Your task to perform on an android device: open app "DoorDash - Dasher" (install if not already installed) Image 0: 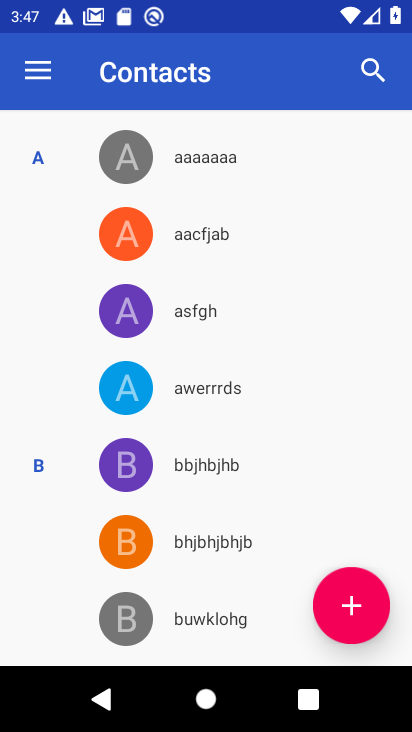
Step 0: press home button
Your task to perform on an android device: open app "DoorDash - Dasher" (install if not already installed) Image 1: 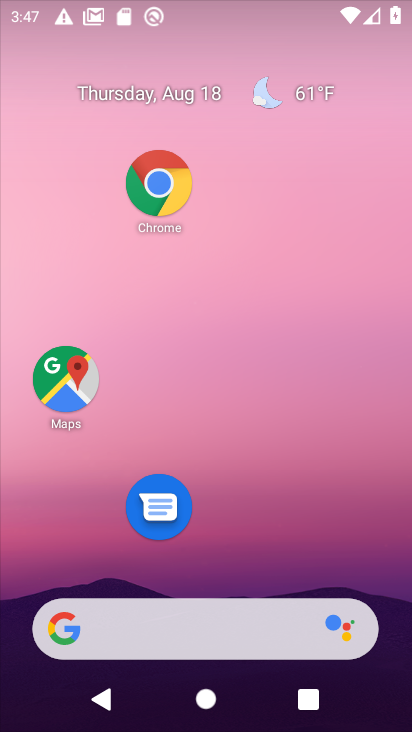
Step 1: drag from (309, 475) to (384, 3)
Your task to perform on an android device: open app "DoorDash - Dasher" (install if not already installed) Image 2: 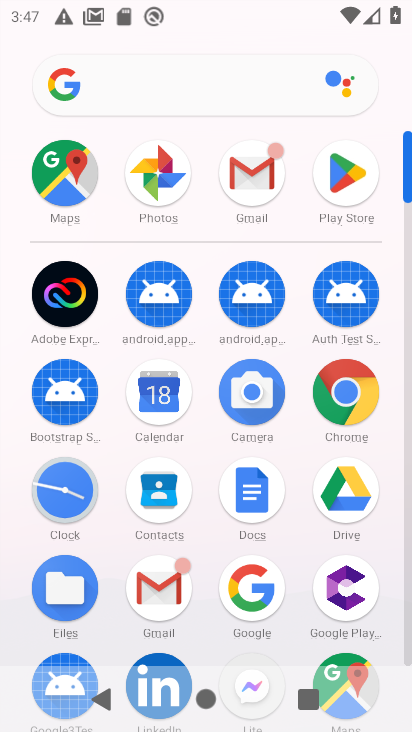
Step 2: click (357, 175)
Your task to perform on an android device: open app "DoorDash - Dasher" (install if not already installed) Image 3: 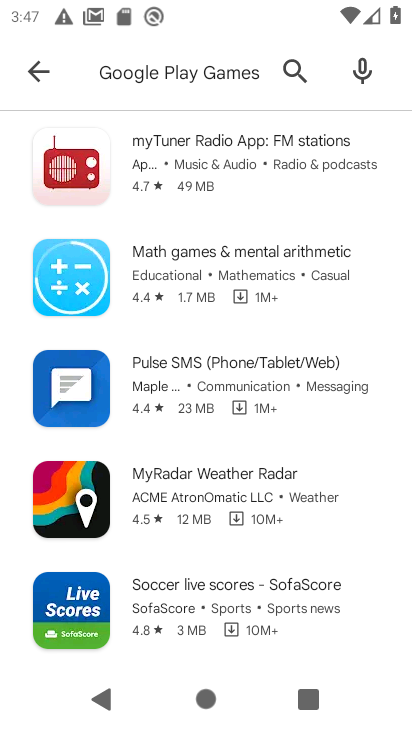
Step 3: click (290, 57)
Your task to perform on an android device: open app "DoorDash - Dasher" (install if not already installed) Image 4: 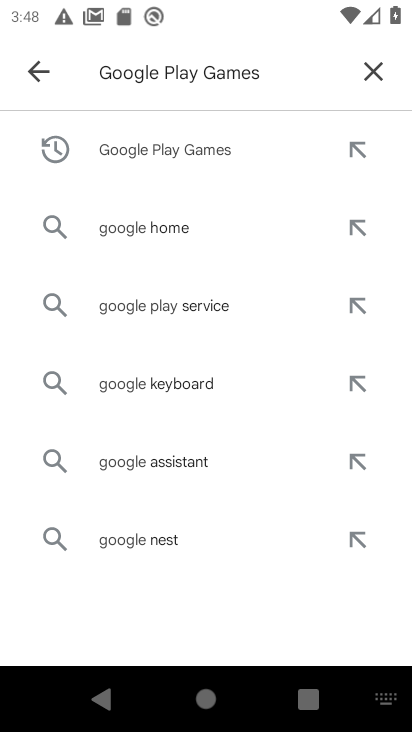
Step 4: click (387, 78)
Your task to perform on an android device: open app "DoorDash - Dasher" (install if not already installed) Image 5: 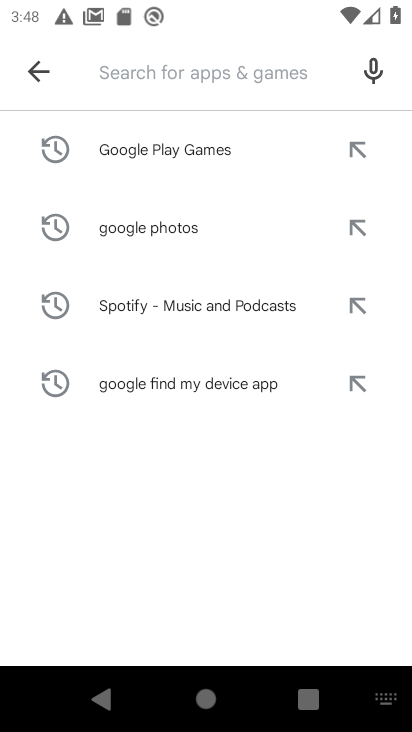
Step 5: click (152, 60)
Your task to perform on an android device: open app "DoorDash - Dasher" (install if not already installed) Image 6: 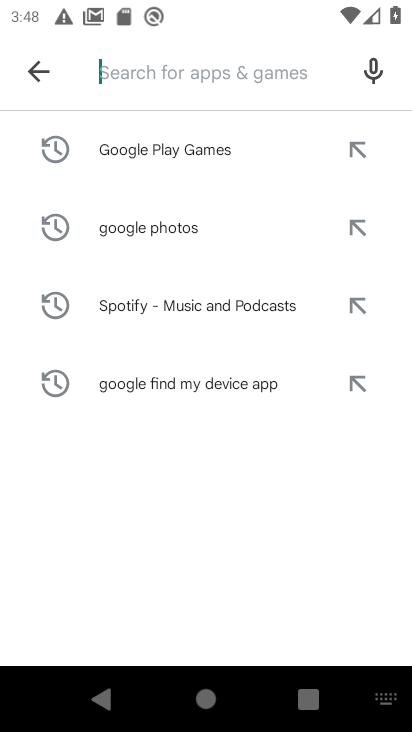
Step 6: type "DoorDash"
Your task to perform on an android device: open app "DoorDash - Dasher" (install if not already installed) Image 7: 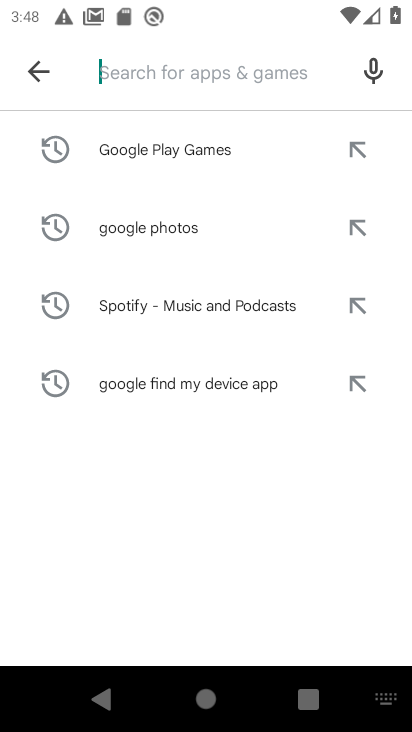
Step 7: click (197, 486)
Your task to perform on an android device: open app "DoorDash - Dasher" (install if not already installed) Image 8: 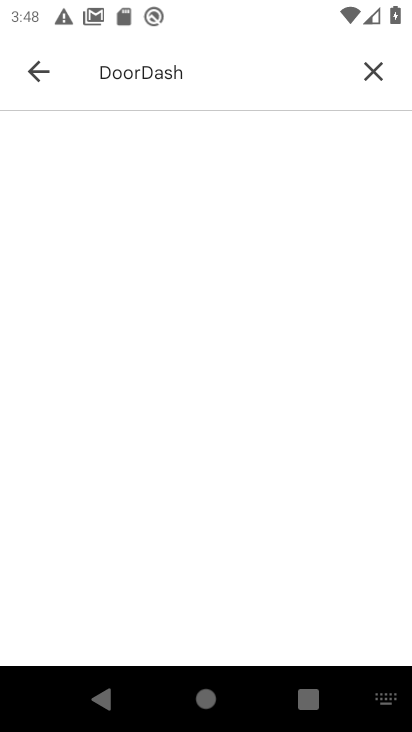
Step 8: click (372, 76)
Your task to perform on an android device: open app "DoorDash - Dasher" (install if not already installed) Image 9: 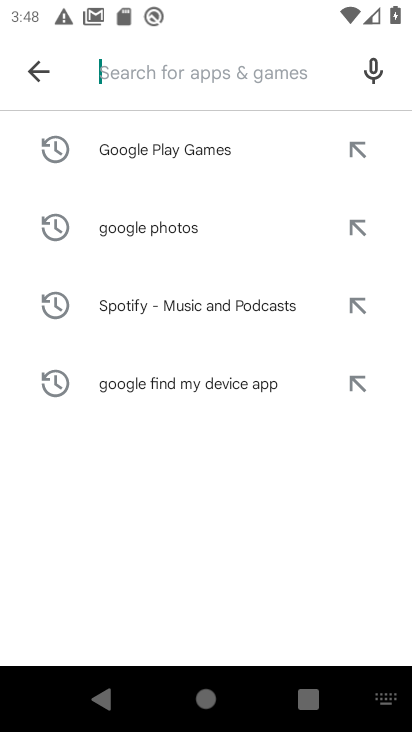
Step 9: click (193, 82)
Your task to perform on an android device: open app "DoorDash - Dasher" (install if not already installed) Image 10: 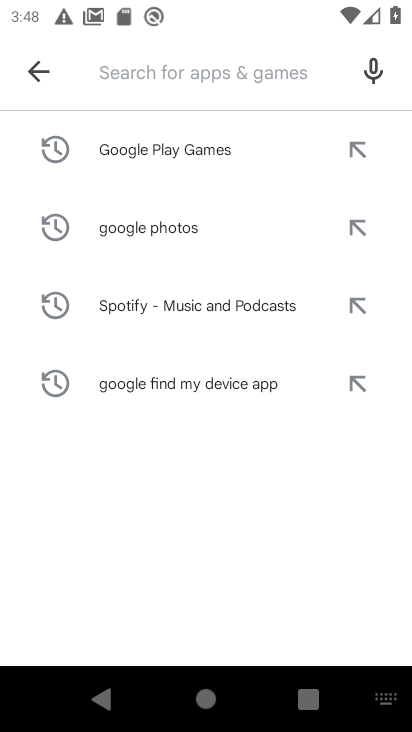
Step 10: type "door"
Your task to perform on an android device: open app "DoorDash - Dasher" (install if not already installed) Image 11: 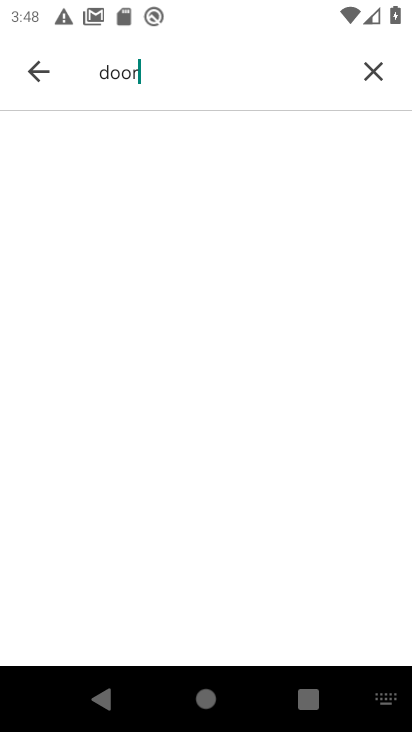
Step 11: task complete